Your task to perform on an android device: create a new album in the google photos Image 0: 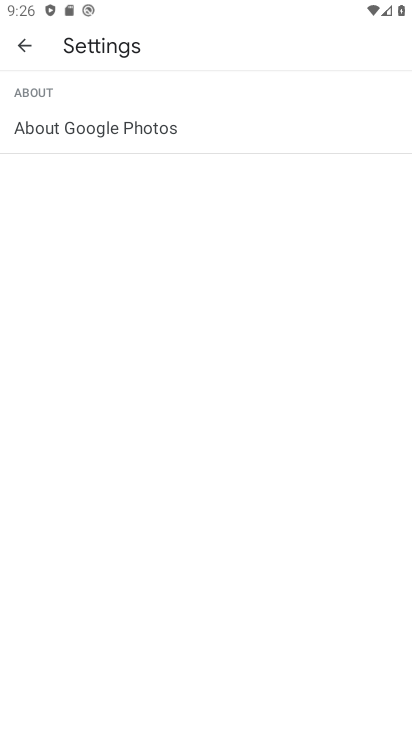
Step 0: press home button
Your task to perform on an android device: create a new album in the google photos Image 1: 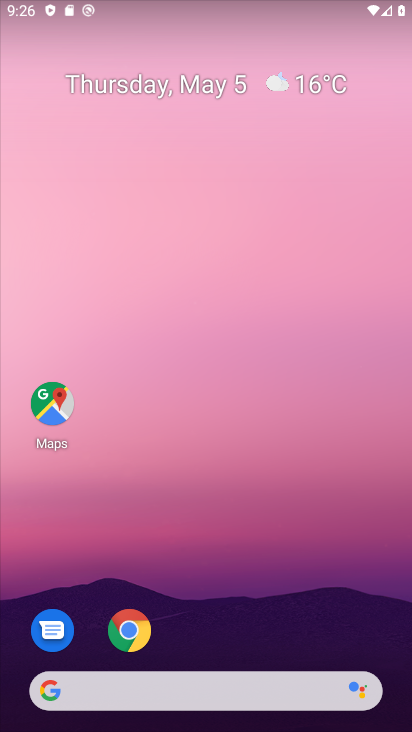
Step 1: drag from (285, 598) to (247, 149)
Your task to perform on an android device: create a new album in the google photos Image 2: 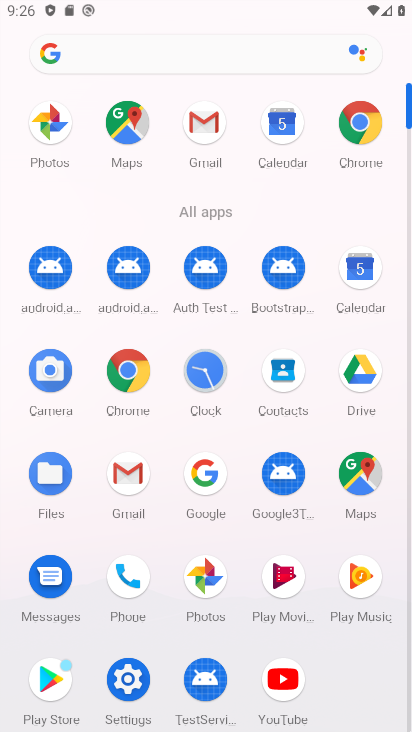
Step 2: click (210, 579)
Your task to perform on an android device: create a new album in the google photos Image 3: 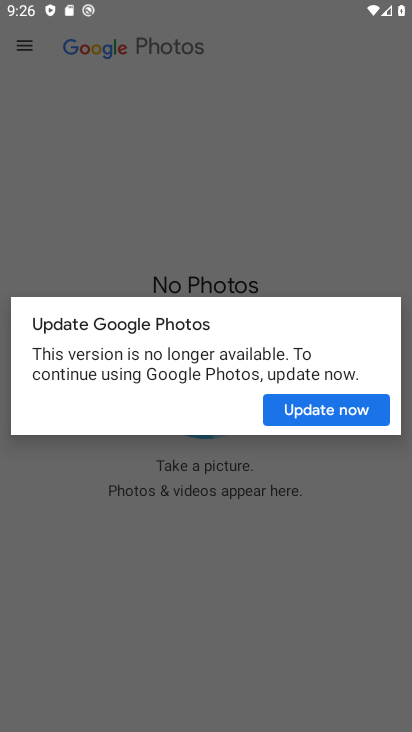
Step 3: click (340, 410)
Your task to perform on an android device: create a new album in the google photos Image 4: 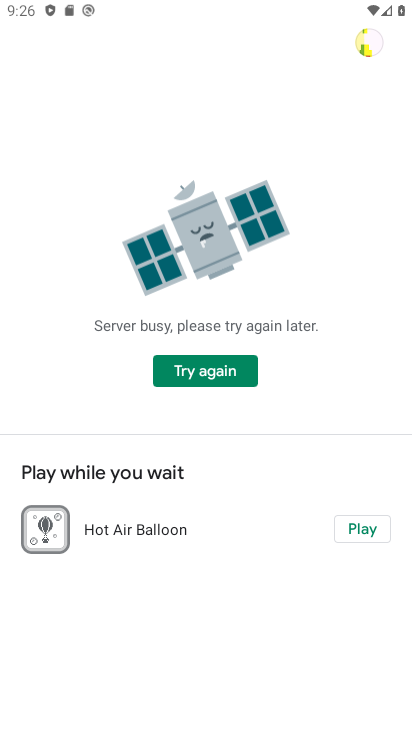
Step 4: task complete